Your task to perform on an android device: Open Youtube and go to the subscriptions tab Image 0: 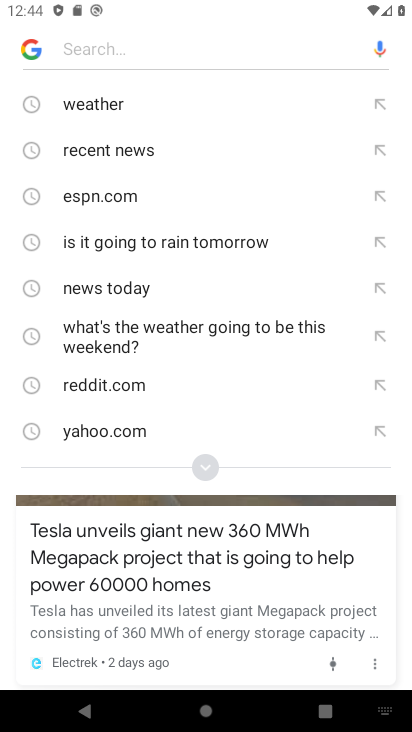
Step 0: press home button
Your task to perform on an android device: Open Youtube and go to the subscriptions tab Image 1: 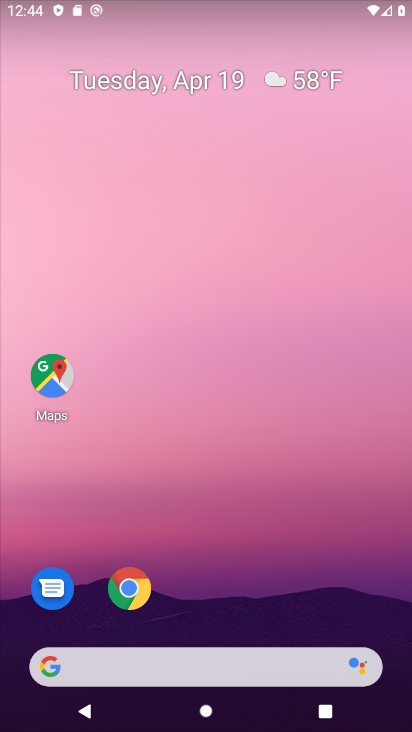
Step 1: drag from (236, 623) to (214, 194)
Your task to perform on an android device: Open Youtube and go to the subscriptions tab Image 2: 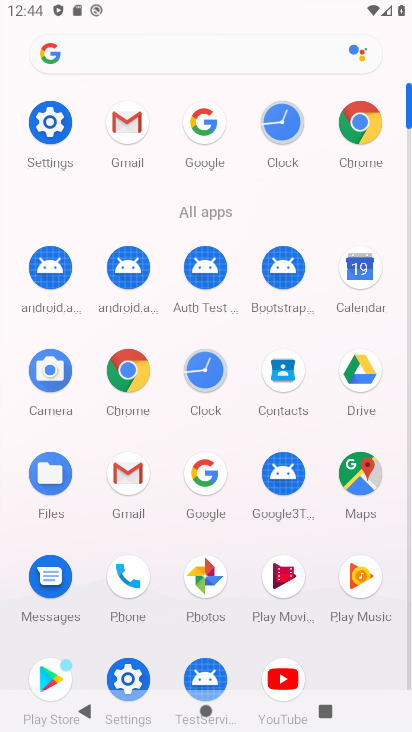
Step 2: click (269, 664)
Your task to perform on an android device: Open Youtube and go to the subscriptions tab Image 3: 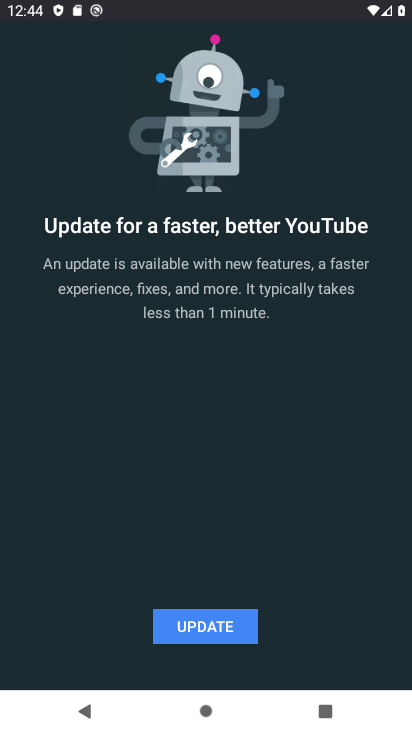
Step 3: click (180, 626)
Your task to perform on an android device: Open Youtube and go to the subscriptions tab Image 4: 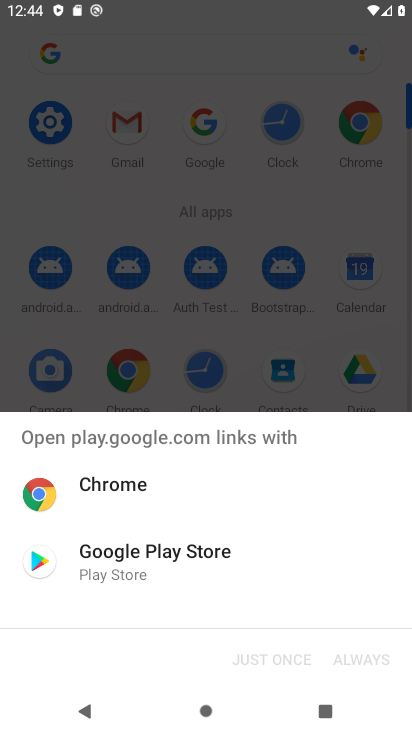
Step 4: click (164, 554)
Your task to perform on an android device: Open Youtube and go to the subscriptions tab Image 5: 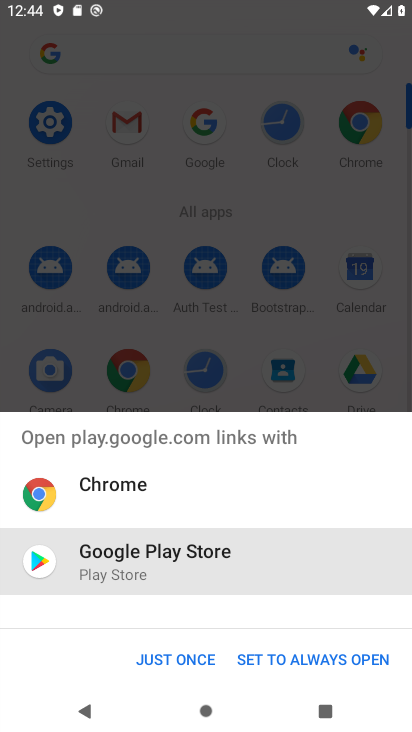
Step 5: drag from (290, 654) to (197, 624)
Your task to perform on an android device: Open Youtube and go to the subscriptions tab Image 6: 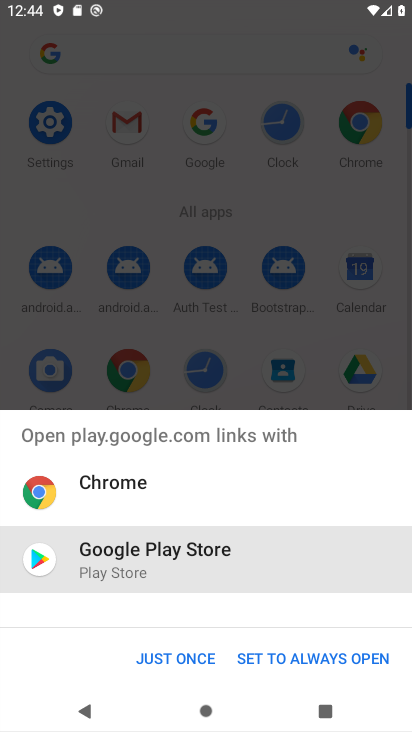
Step 6: click (169, 659)
Your task to perform on an android device: Open Youtube and go to the subscriptions tab Image 7: 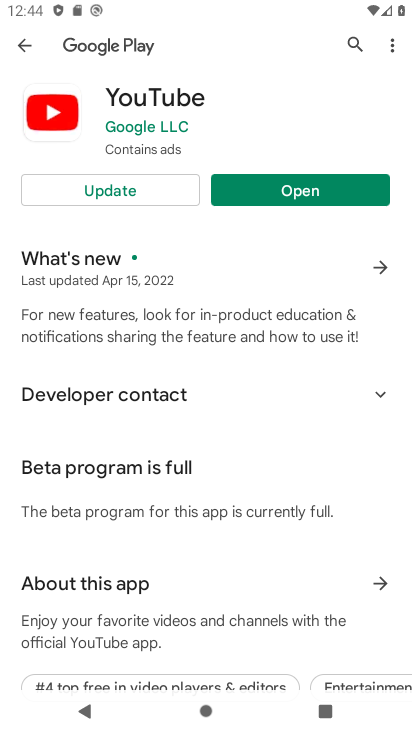
Step 7: click (285, 189)
Your task to perform on an android device: Open Youtube and go to the subscriptions tab Image 8: 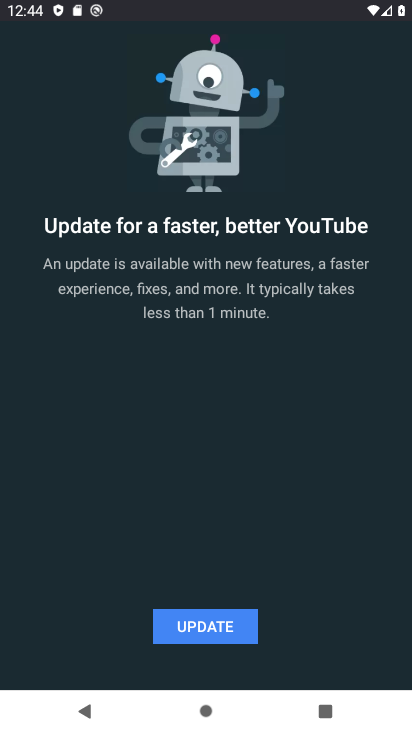
Step 8: click (208, 630)
Your task to perform on an android device: Open Youtube and go to the subscriptions tab Image 9: 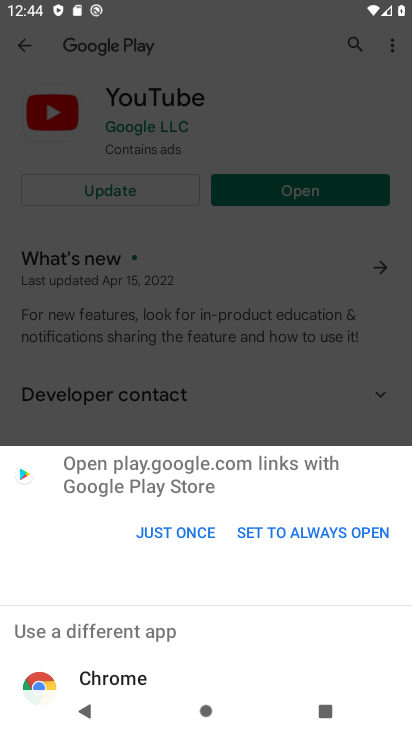
Step 9: click (188, 531)
Your task to perform on an android device: Open Youtube and go to the subscriptions tab Image 10: 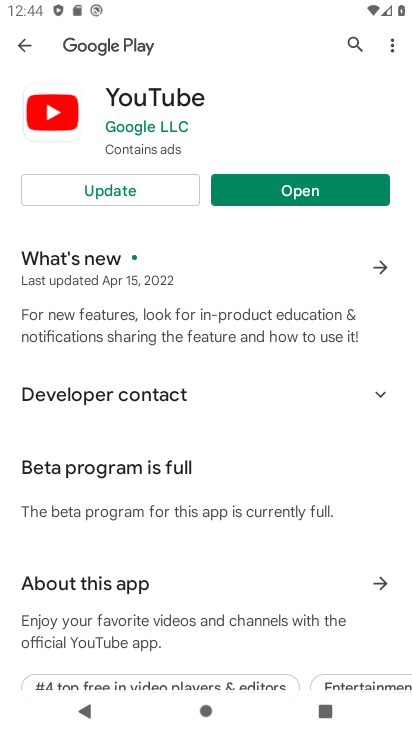
Step 10: click (127, 191)
Your task to perform on an android device: Open Youtube and go to the subscriptions tab Image 11: 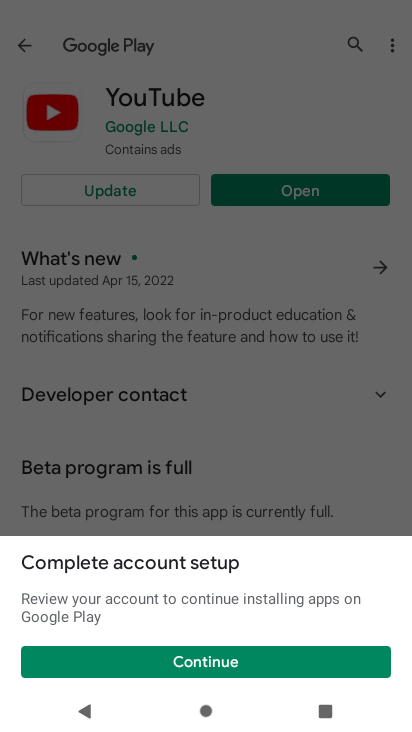
Step 11: click (239, 668)
Your task to perform on an android device: Open Youtube and go to the subscriptions tab Image 12: 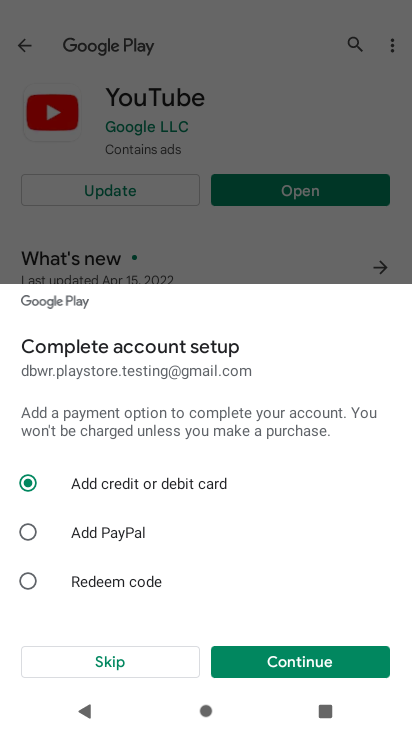
Step 12: click (133, 655)
Your task to perform on an android device: Open Youtube and go to the subscriptions tab Image 13: 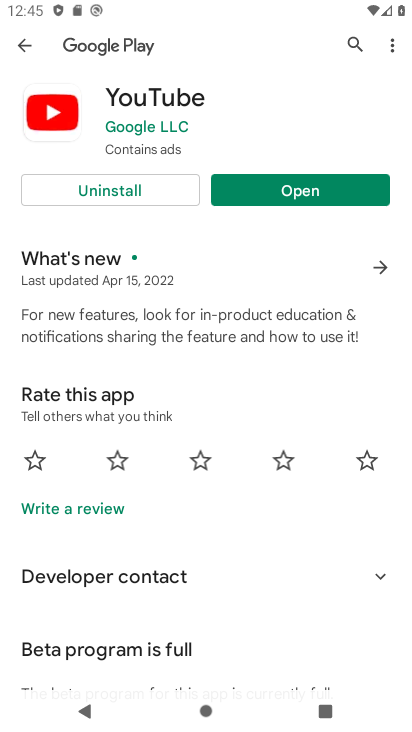
Step 13: click (320, 187)
Your task to perform on an android device: Open Youtube and go to the subscriptions tab Image 14: 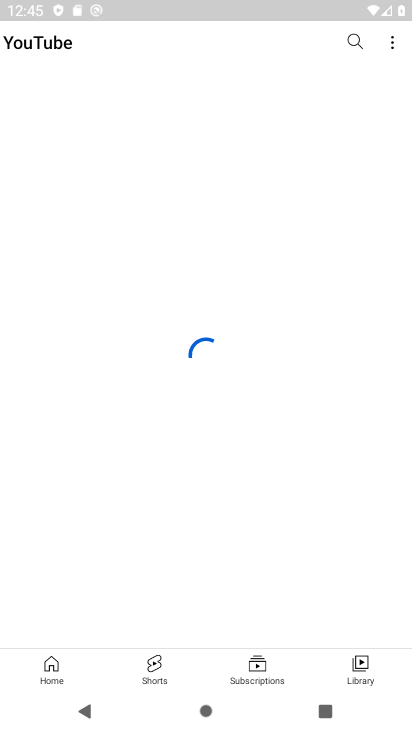
Step 14: click (254, 661)
Your task to perform on an android device: Open Youtube and go to the subscriptions tab Image 15: 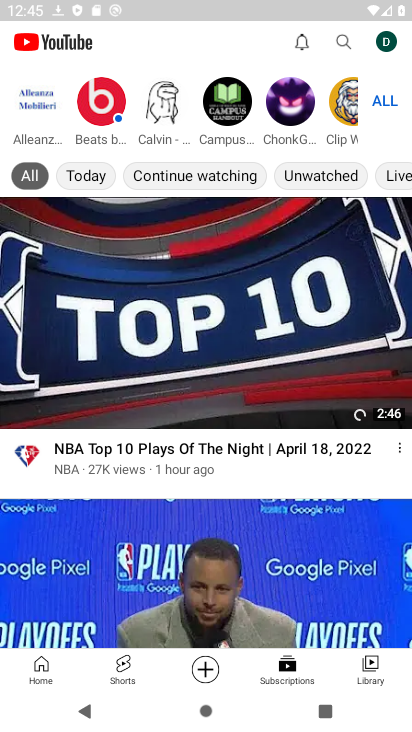
Step 15: task complete